Your task to perform on an android device: open app "Life360: Find Family & Friends" (install if not already installed) and enter user name: "gusts@gmail.com" and password: "assurers" Image 0: 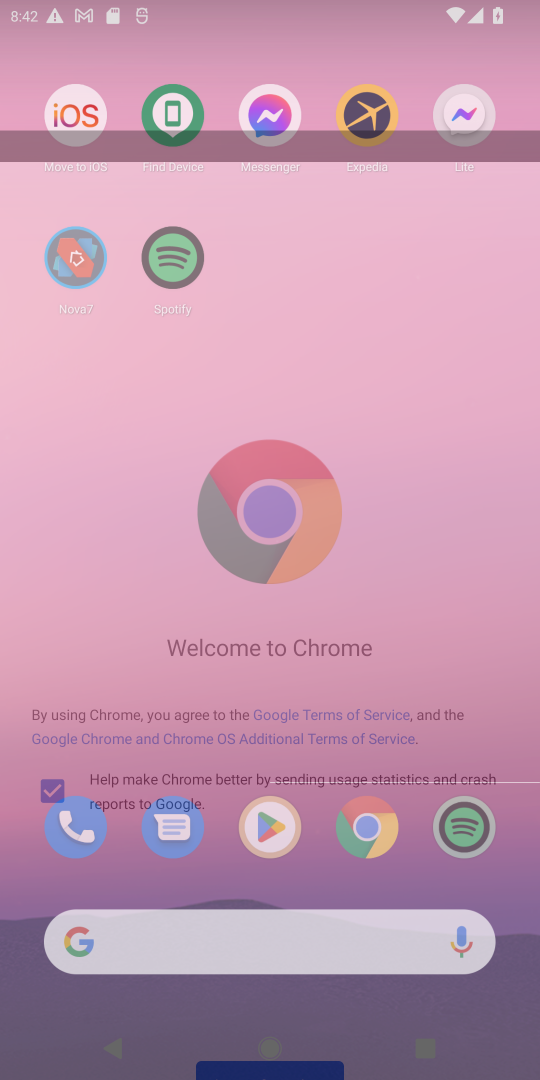
Step 0: press home button
Your task to perform on an android device: open app "Life360: Find Family & Friends" (install if not already installed) and enter user name: "gusts@gmail.com" and password: "assurers" Image 1: 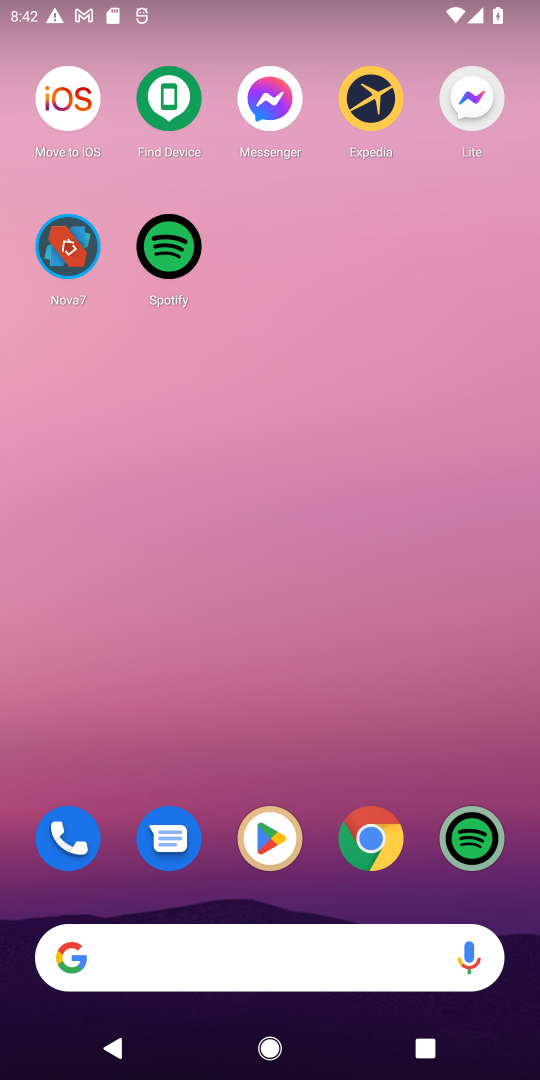
Step 1: press home button
Your task to perform on an android device: open app "Life360: Find Family & Friends" (install if not already installed) and enter user name: "gusts@gmail.com" and password: "assurers" Image 2: 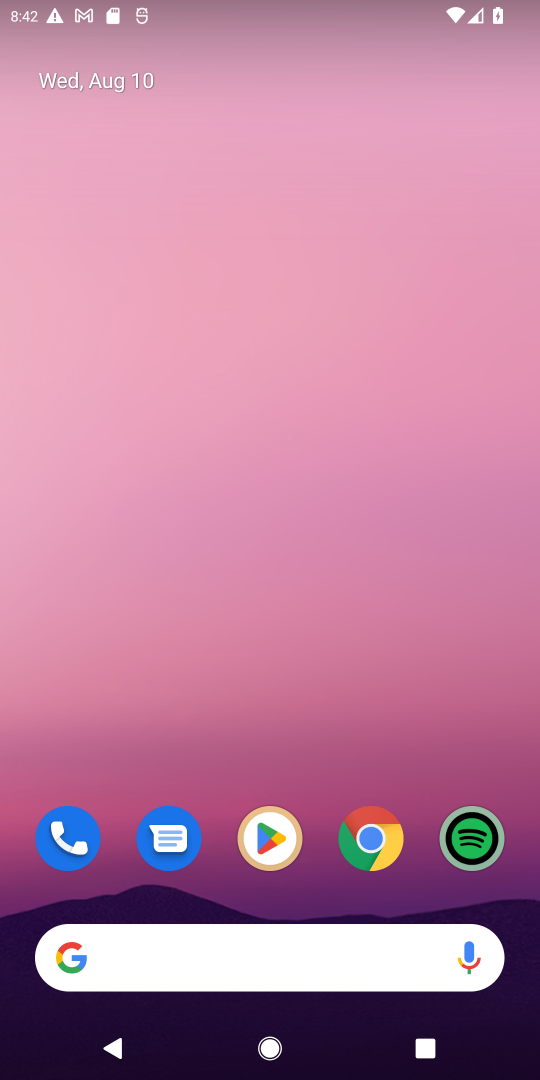
Step 2: click (264, 828)
Your task to perform on an android device: open app "Life360: Find Family & Friends" (install if not already installed) and enter user name: "gusts@gmail.com" and password: "assurers" Image 3: 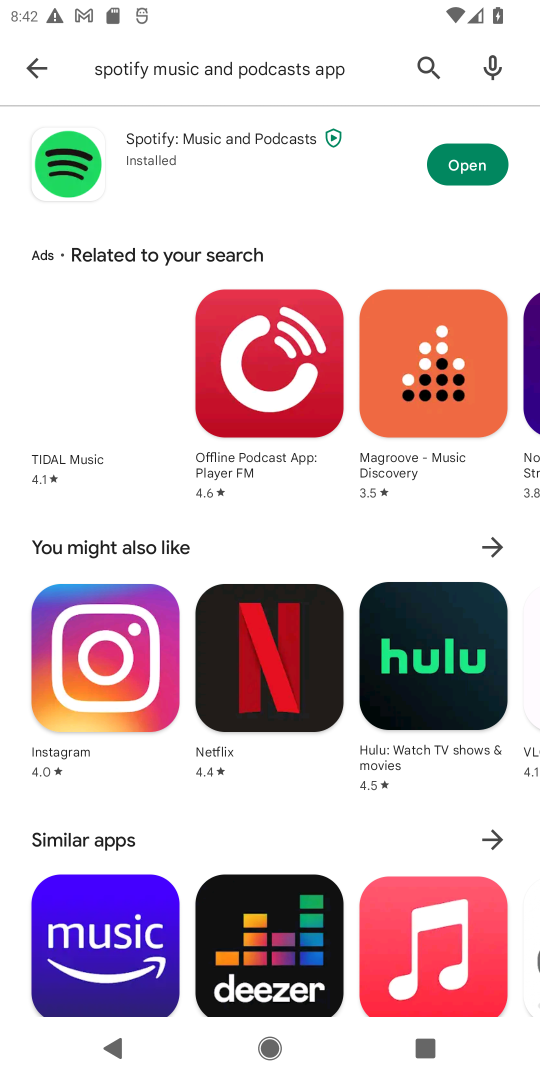
Step 3: click (424, 57)
Your task to perform on an android device: open app "Life360: Find Family & Friends" (install if not already installed) and enter user name: "gusts@gmail.com" and password: "assurers" Image 4: 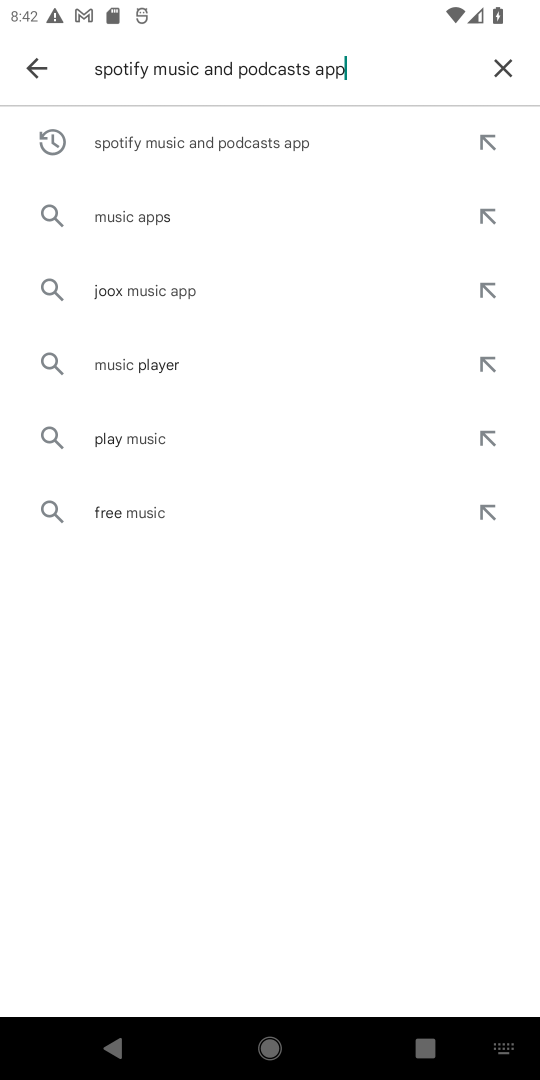
Step 4: click (505, 72)
Your task to perform on an android device: open app "Life360: Find Family & Friends" (install if not already installed) and enter user name: "gusts@gmail.com" and password: "assurers" Image 5: 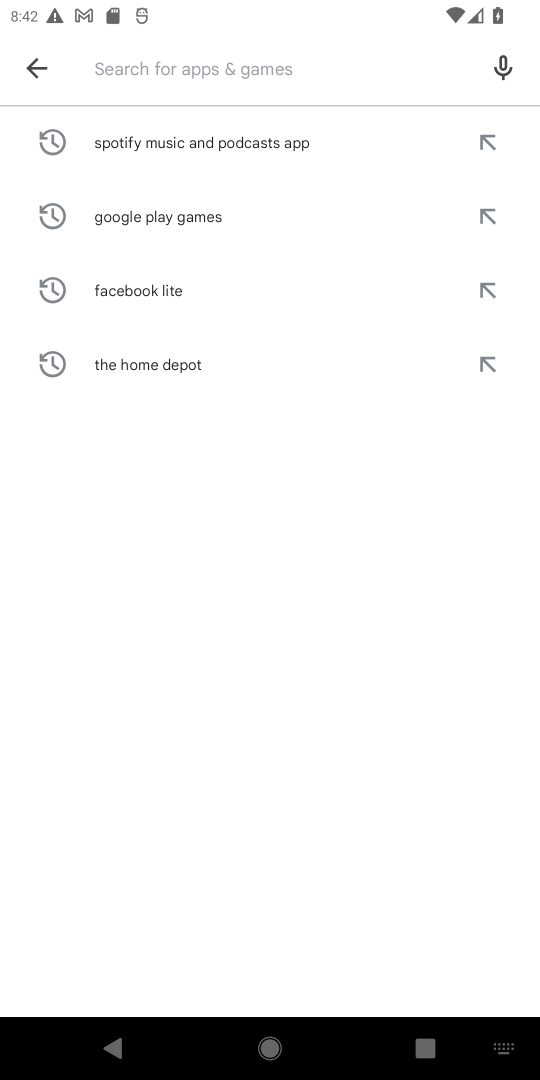
Step 5: type "Life360: Find Family & Friends"
Your task to perform on an android device: open app "Life360: Find Family & Friends" (install if not already installed) and enter user name: "gusts@gmail.com" and password: "assurers" Image 6: 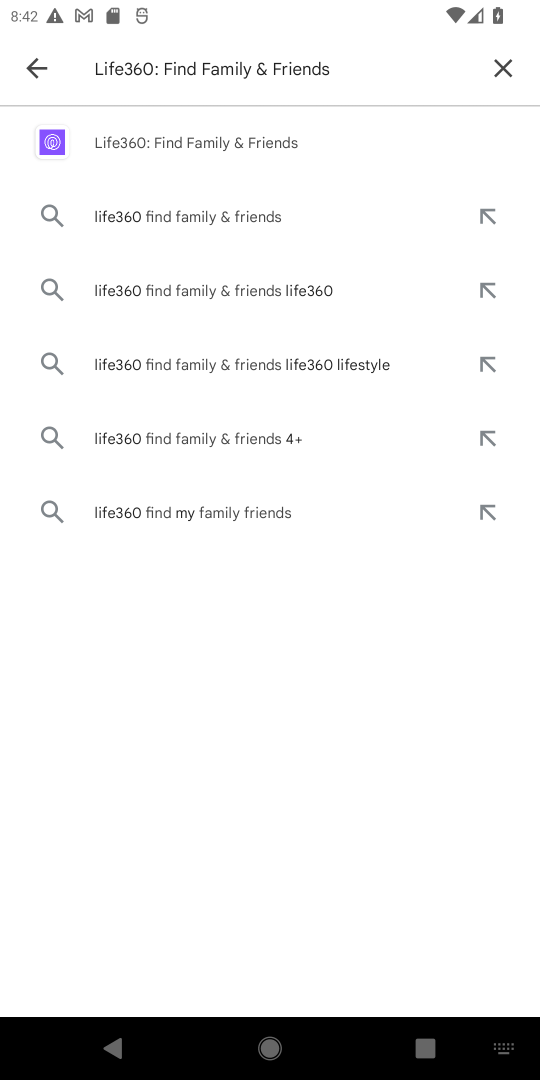
Step 6: click (204, 154)
Your task to perform on an android device: open app "Life360: Find Family & Friends" (install if not already installed) and enter user name: "gusts@gmail.com" and password: "assurers" Image 7: 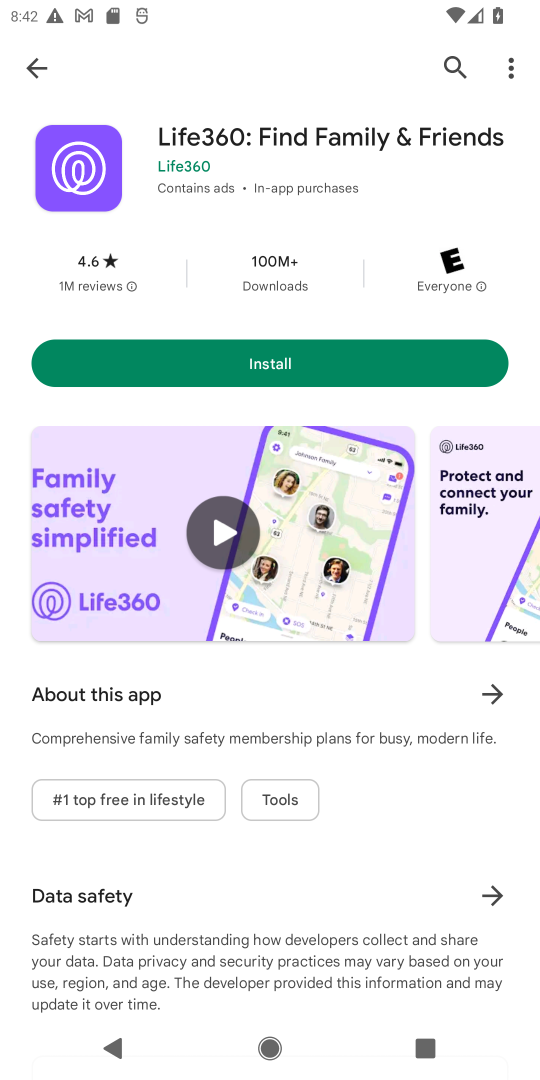
Step 7: click (272, 360)
Your task to perform on an android device: open app "Life360: Find Family & Friends" (install if not already installed) and enter user name: "gusts@gmail.com" and password: "assurers" Image 8: 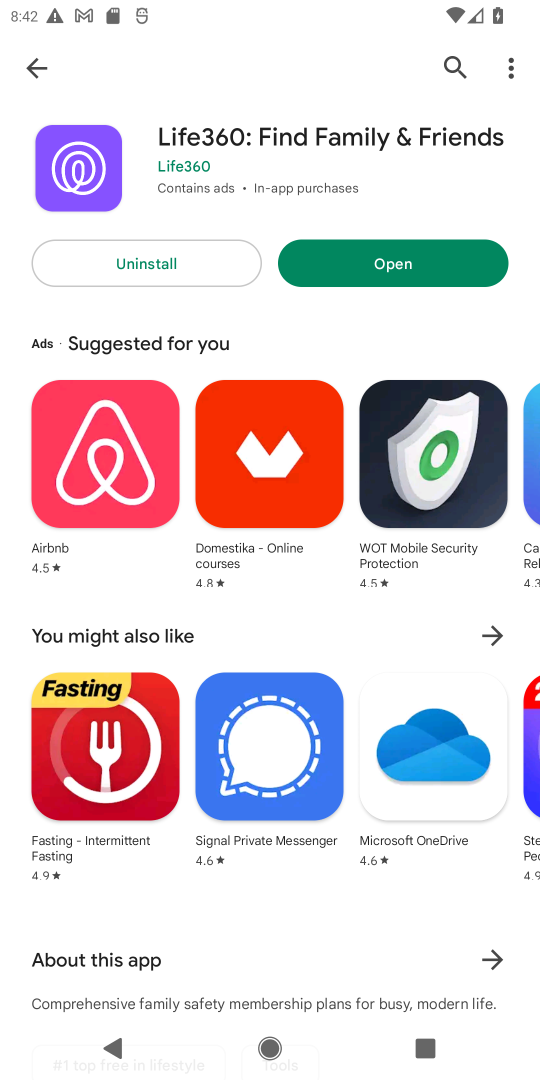
Step 8: click (392, 279)
Your task to perform on an android device: open app "Life360: Find Family & Friends" (install if not already installed) and enter user name: "gusts@gmail.com" and password: "assurers" Image 9: 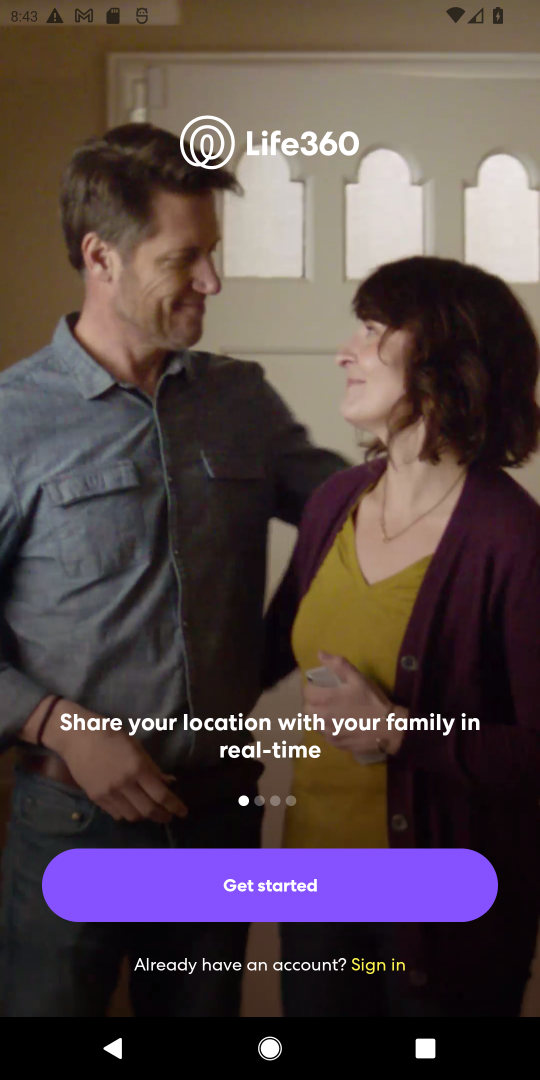
Step 9: click (273, 897)
Your task to perform on an android device: open app "Life360: Find Family & Friends" (install if not already installed) and enter user name: "gusts@gmail.com" and password: "assurers" Image 10: 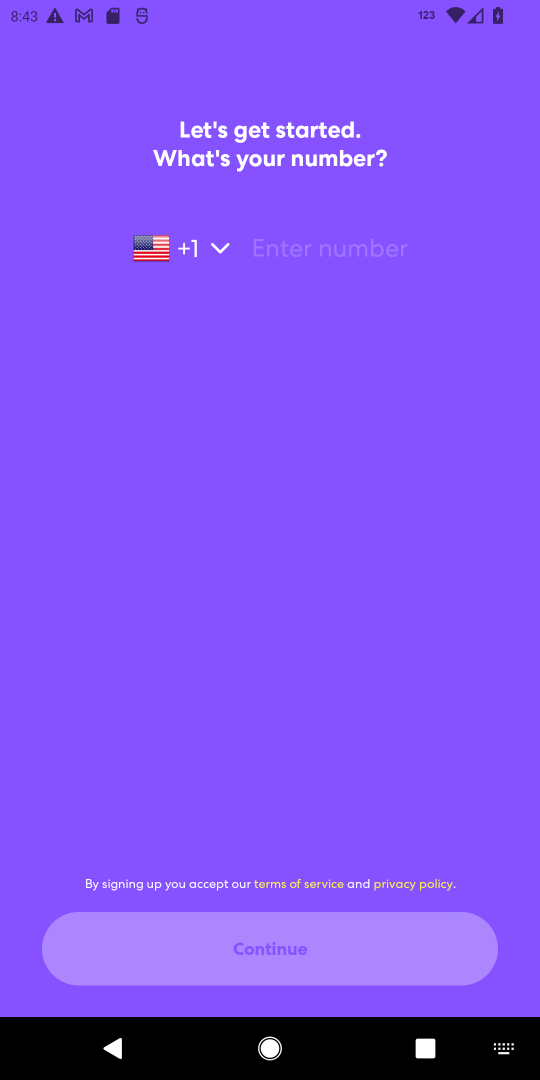
Step 10: click (248, 888)
Your task to perform on an android device: open app "Life360: Find Family & Friends" (install if not already installed) and enter user name: "gusts@gmail.com" and password: "assurers" Image 11: 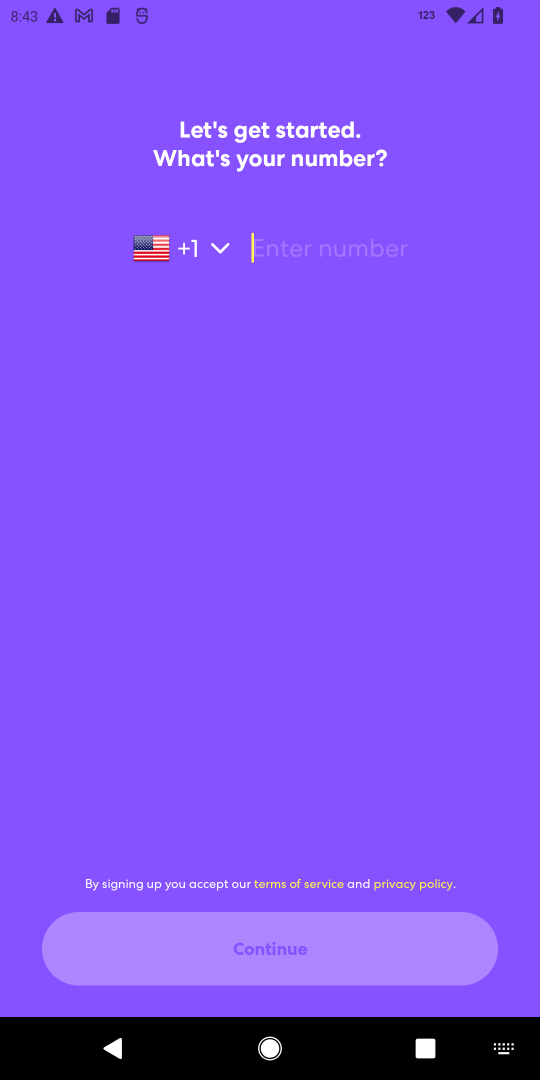
Step 11: task complete